Your task to perform on an android device: set an alarm Image 0: 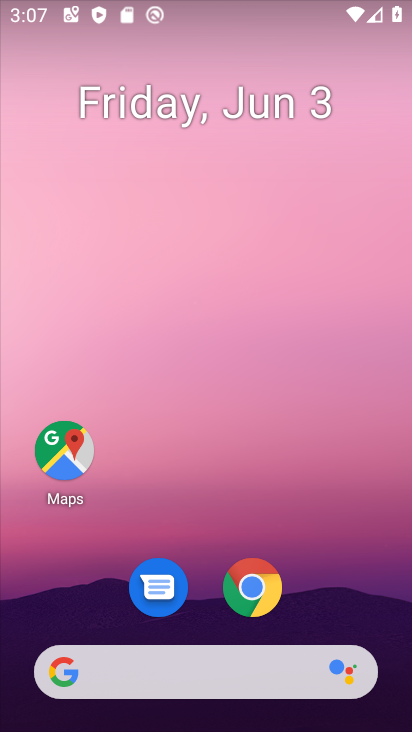
Step 0: drag from (224, 722) to (238, 217)
Your task to perform on an android device: set an alarm Image 1: 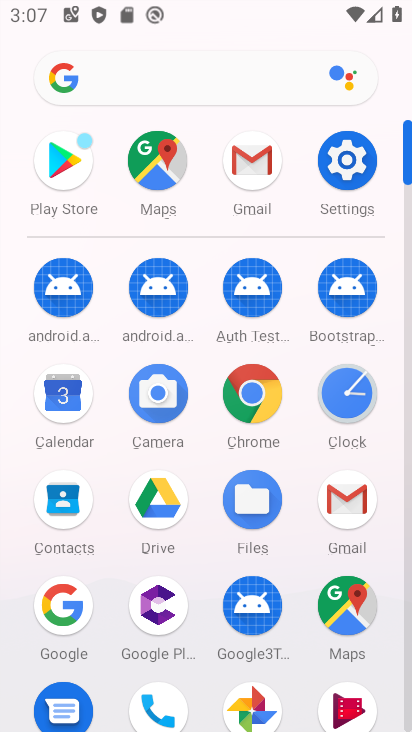
Step 1: click (346, 401)
Your task to perform on an android device: set an alarm Image 2: 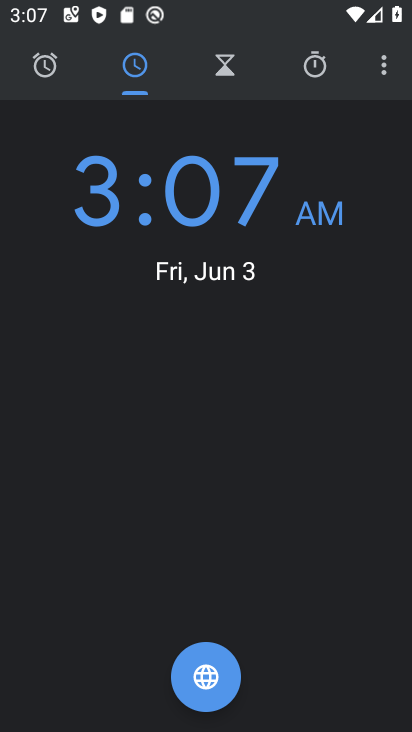
Step 2: click (47, 64)
Your task to perform on an android device: set an alarm Image 3: 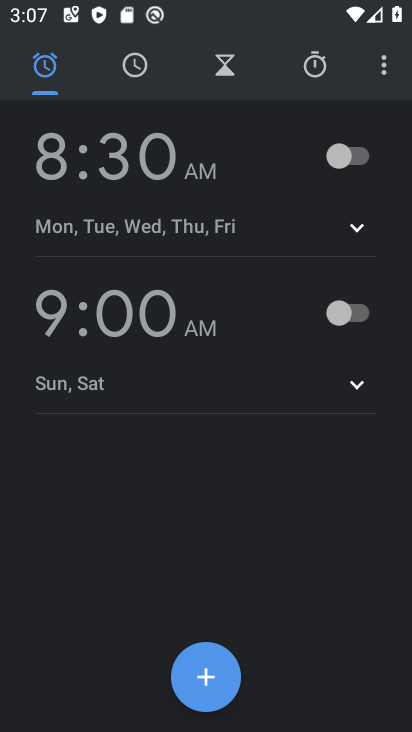
Step 3: click (204, 677)
Your task to perform on an android device: set an alarm Image 4: 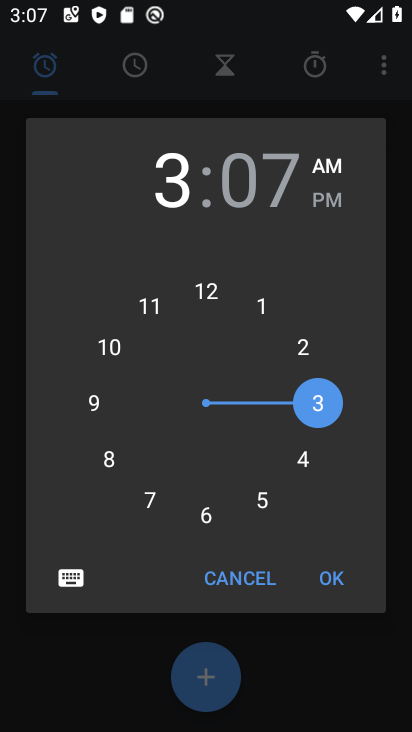
Step 4: click (207, 511)
Your task to perform on an android device: set an alarm Image 5: 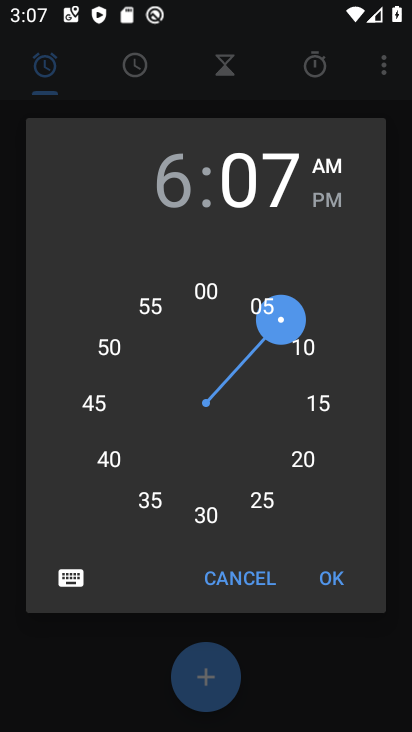
Step 5: click (332, 582)
Your task to perform on an android device: set an alarm Image 6: 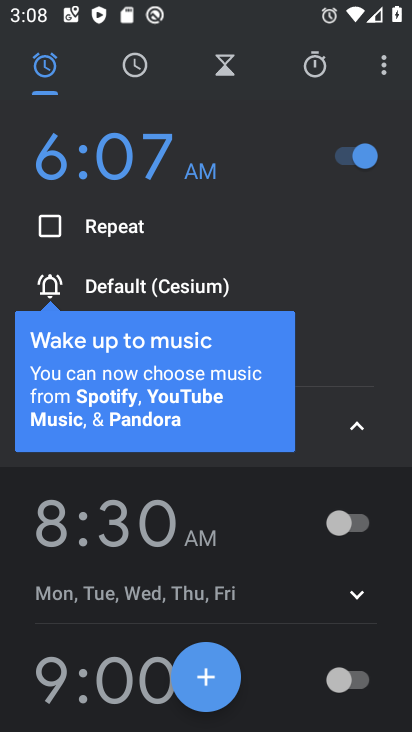
Step 6: task complete